Your task to perform on an android device: turn on showing notifications on the lock screen Image 0: 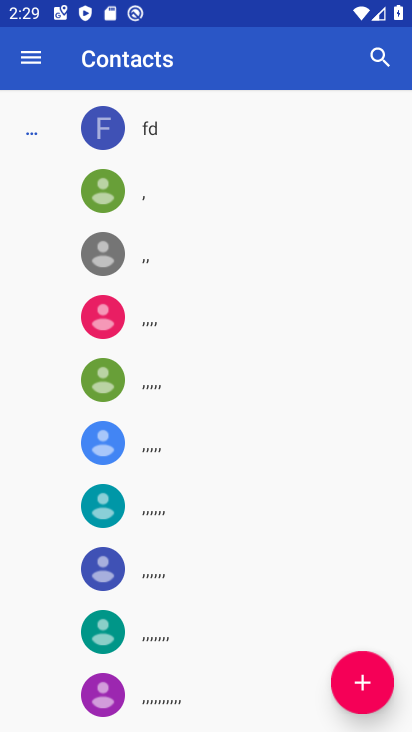
Step 0: press back button
Your task to perform on an android device: turn on showing notifications on the lock screen Image 1: 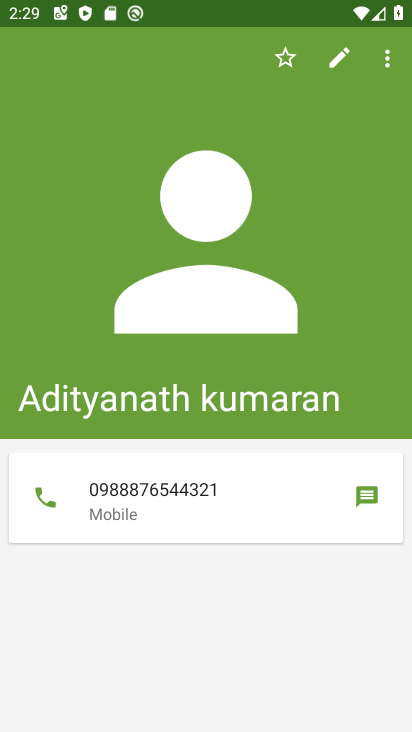
Step 1: press back button
Your task to perform on an android device: turn on showing notifications on the lock screen Image 2: 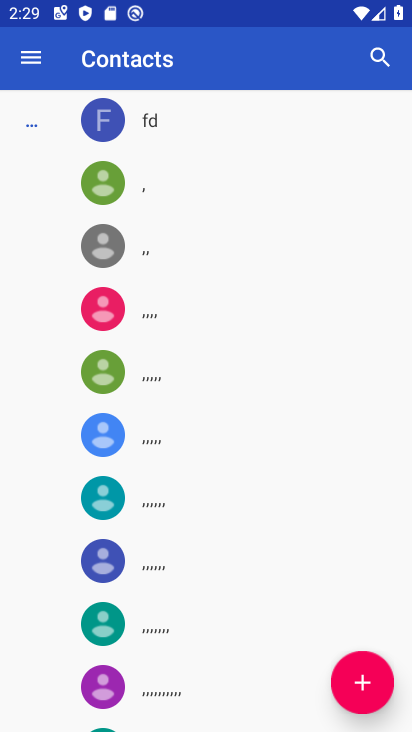
Step 2: press back button
Your task to perform on an android device: turn on showing notifications on the lock screen Image 3: 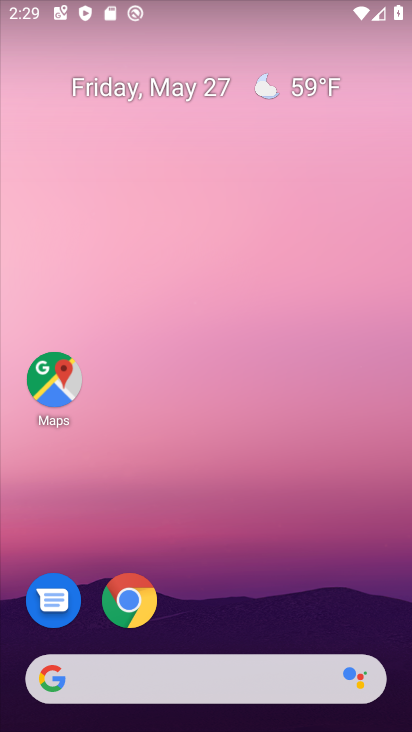
Step 3: drag from (249, 603) to (218, 193)
Your task to perform on an android device: turn on showing notifications on the lock screen Image 4: 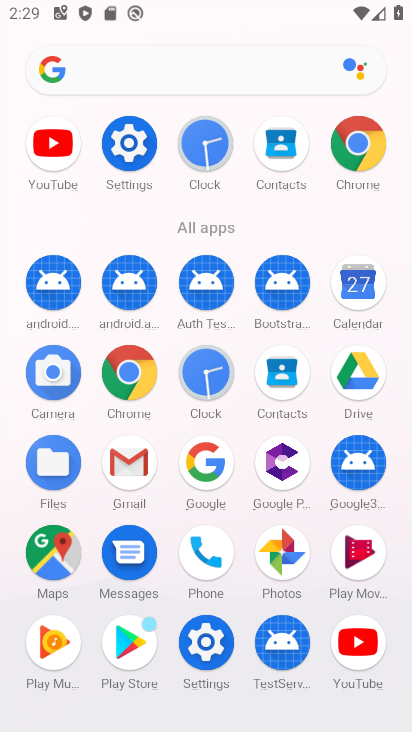
Step 4: click (129, 143)
Your task to perform on an android device: turn on showing notifications on the lock screen Image 5: 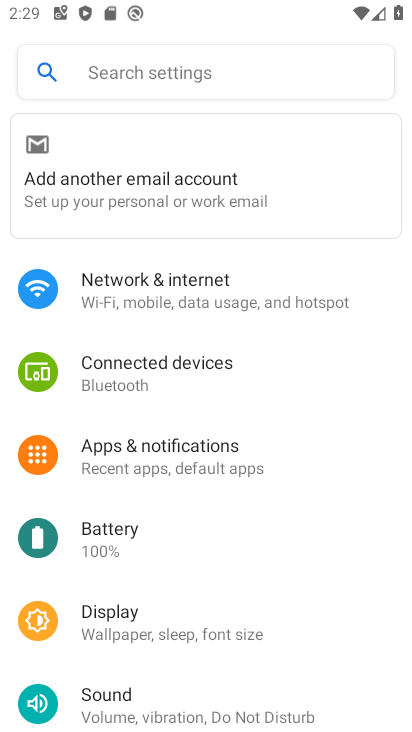
Step 5: drag from (168, 425) to (191, 360)
Your task to perform on an android device: turn on showing notifications on the lock screen Image 6: 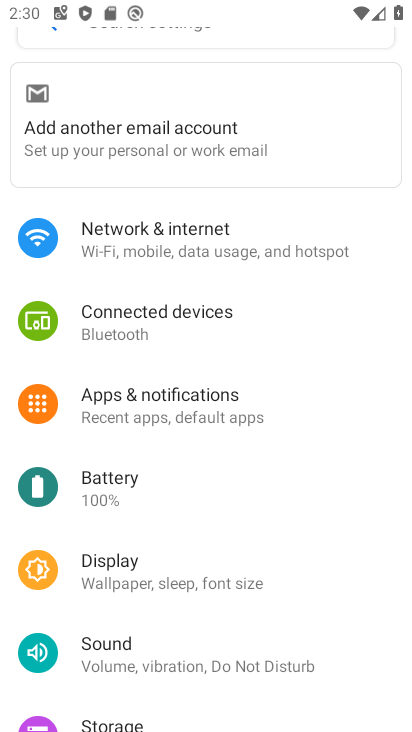
Step 6: click (159, 406)
Your task to perform on an android device: turn on showing notifications on the lock screen Image 7: 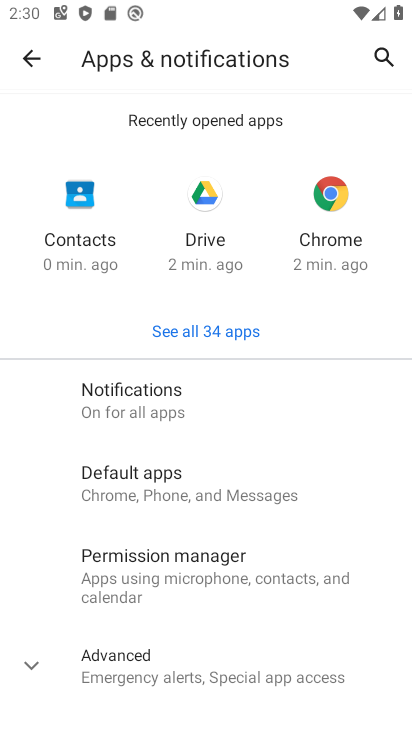
Step 7: click (159, 403)
Your task to perform on an android device: turn on showing notifications on the lock screen Image 8: 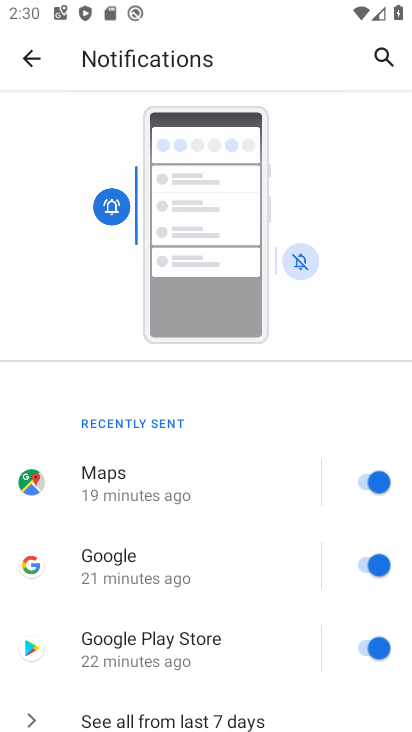
Step 8: drag from (205, 549) to (265, 438)
Your task to perform on an android device: turn on showing notifications on the lock screen Image 9: 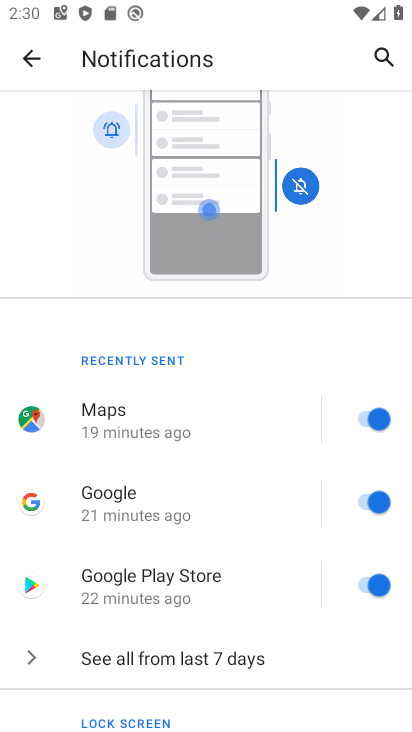
Step 9: drag from (210, 595) to (262, 367)
Your task to perform on an android device: turn on showing notifications on the lock screen Image 10: 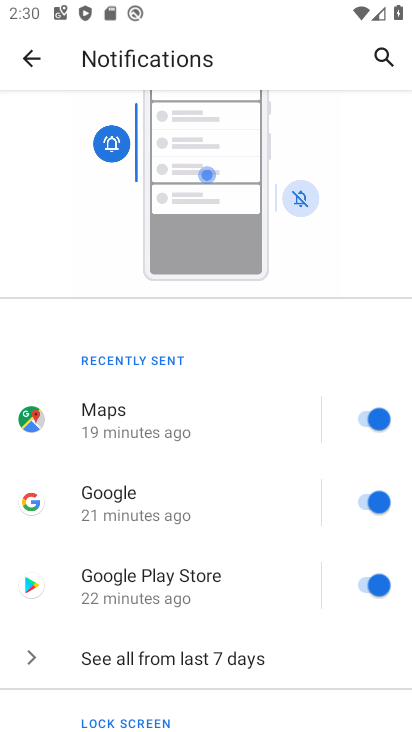
Step 10: drag from (206, 707) to (285, 332)
Your task to perform on an android device: turn on showing notifications on the lock screen Image 11: 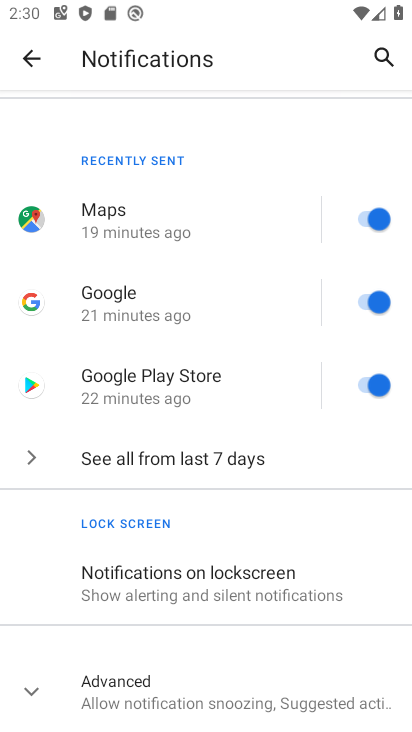
Step 11: drag from (204, 538) to (288, 352)
Your task to perform on an android device: turn on showing notifications on the lock screen Image 12: 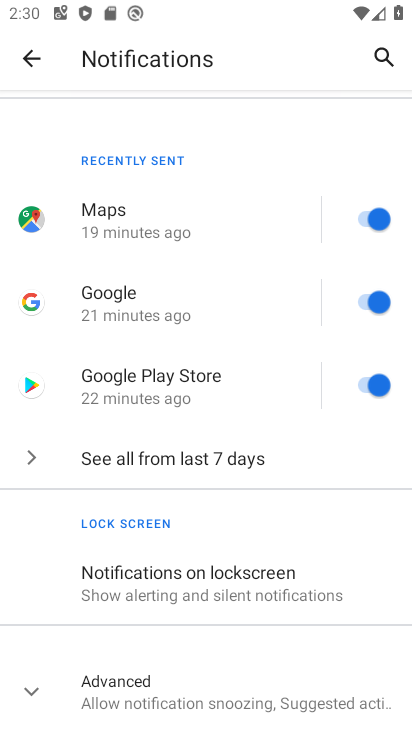
Step 12: click (185, 572)
Your task to perform on an android device: turn on showing notifications on the lock screen Image 13: 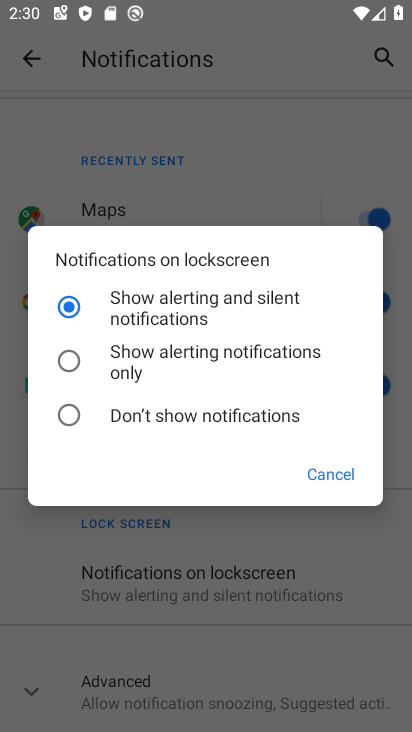
Step 13: click (69, 300)
Your task to perform on an android device: turn on showing notifications on the lock screen Image 14: 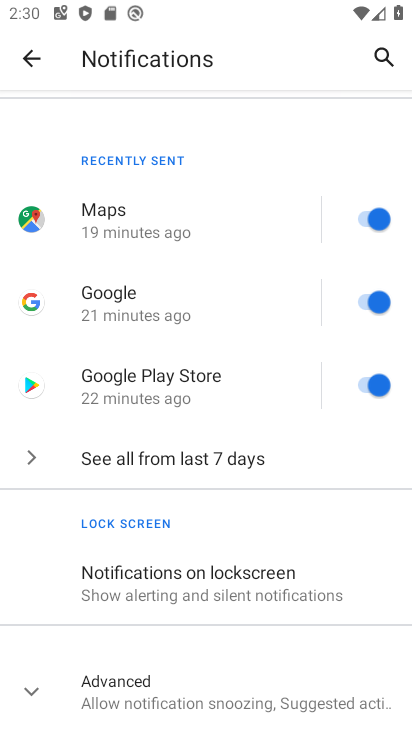
Step 14: task complete